Your task to perform on an android device: add a contact in the contacts app Image 0: 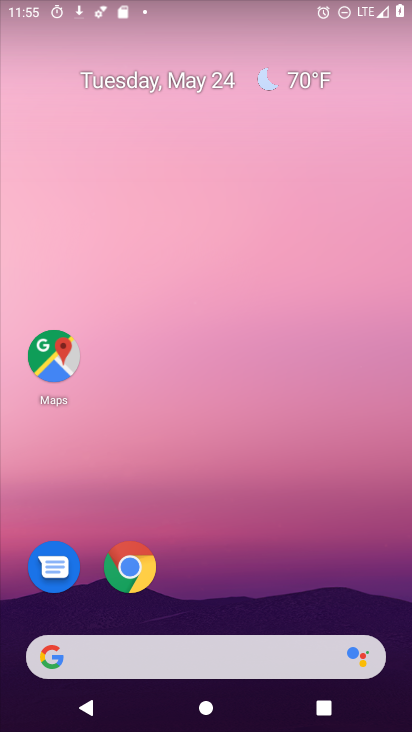
Step 0: drag from (395, 695) to (385, 268)
Your task to perform on an android device: add a contact in the contacts app Image 1: 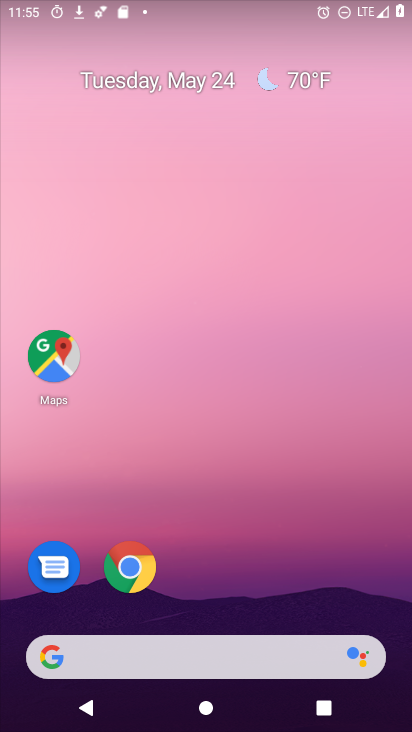
Step 1: drag from (392, 696) to (375, 233)
Your task to perform on an android device: add a contact in the contacts app Image 2: 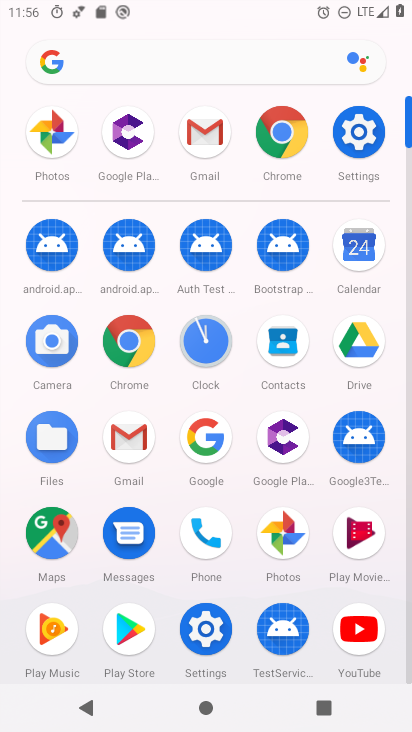
Step 2: click (279, 354)
Your task to perform on an android device: add a contact in the contacts app Image 3: 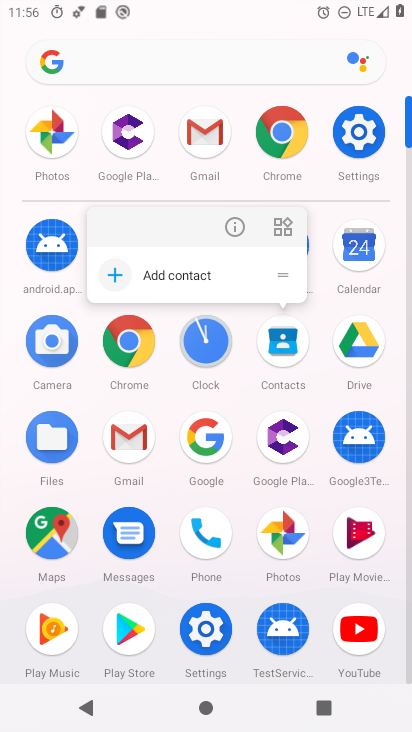
Step 3: click (269, 336)
Your task to perform on an android device: add a contact in the contacts app Image 4: 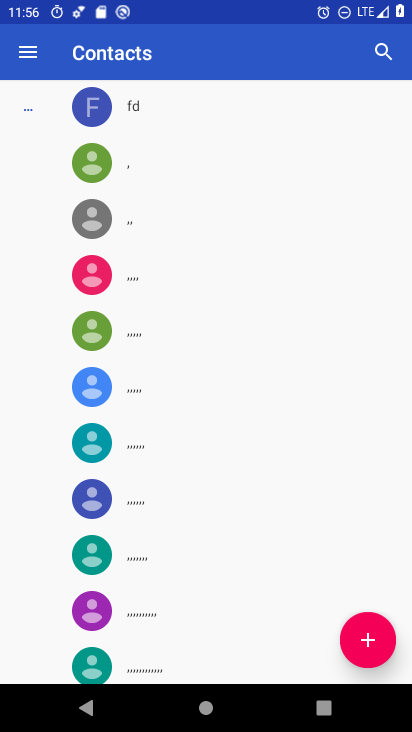
Step 4: click (368, 644)
Your task to perform on an android device: add a contact in the contacts app Image 5: 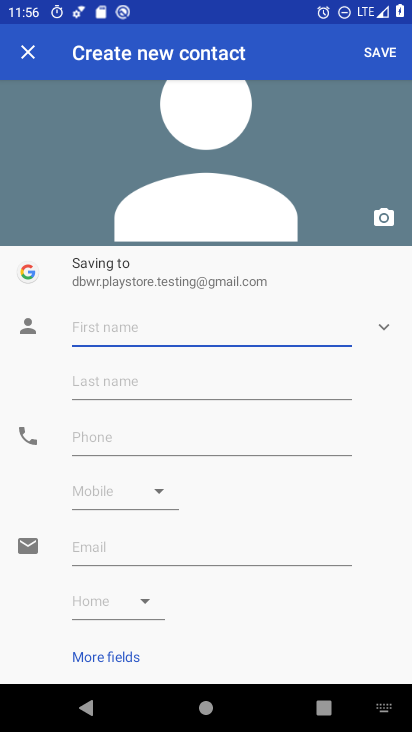
Step 5: click (160, 332)
Your task to perform on an android device: add a contact in the contacts app Image 6: 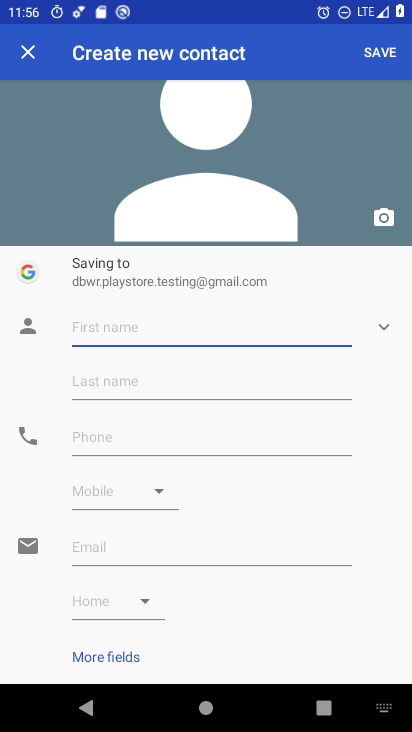
Step 6: type "fhgfgfgj"
Your task to perform on an android device: add a contact in the contacts app Image 7: 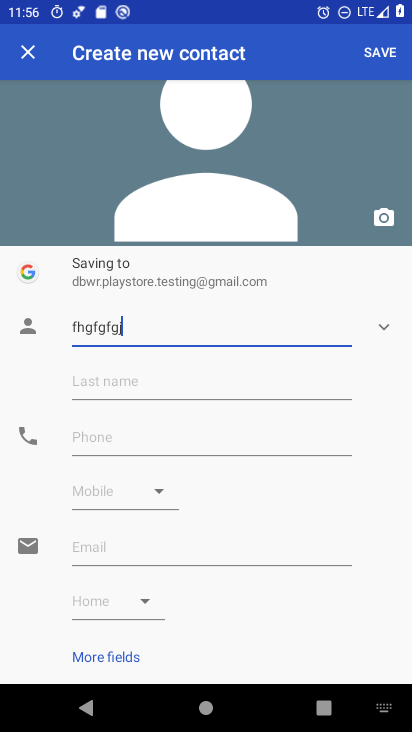
Step 7: click (151, 385)
Your task to perform on an android device: add a contact in the contacts app Image 8: 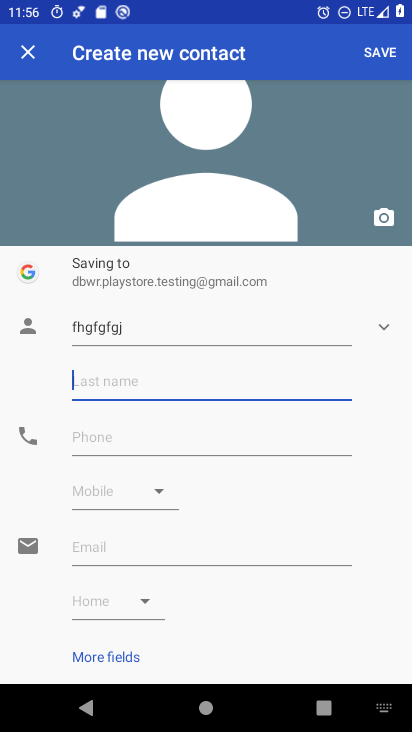
Step 8: type "hgfdfcgh"
Your task to perform on an android device: add a contact in the contacts app Image 9: 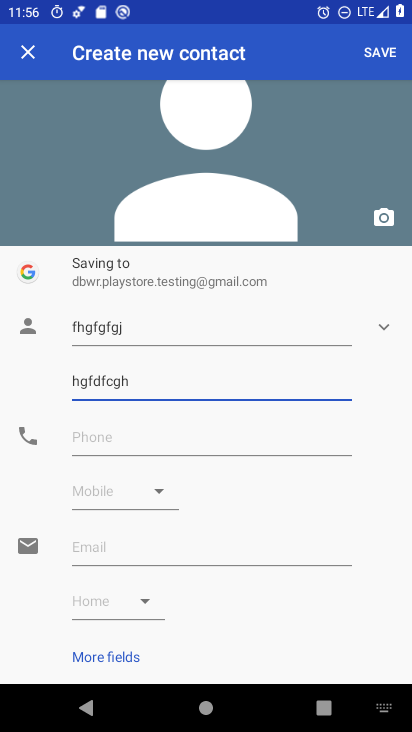
Step 9: click (221, 433)
Your task to perform on an android device: add a contact in the contacts app Image 10: 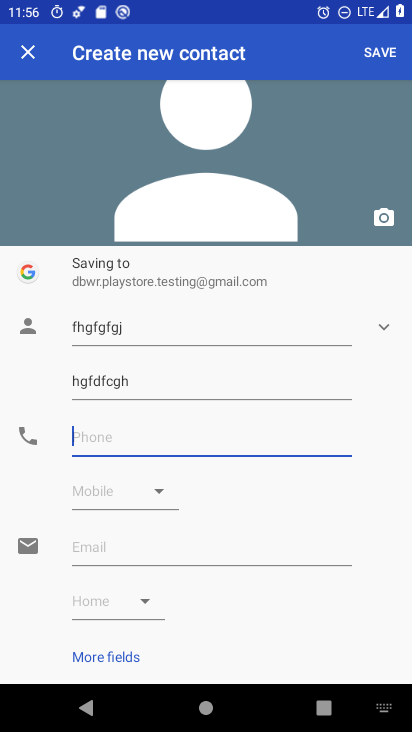
Step 10: type "6775745436678"
Your task to perform on an android device: add a contact in the contacts app Image 11: 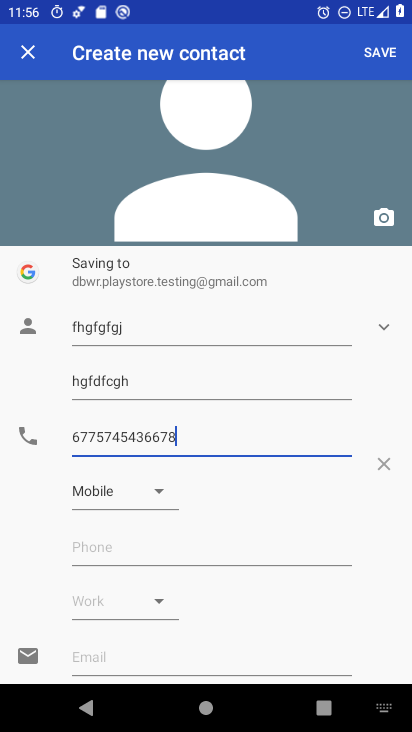
Step 11: click (388, 52)
Your task to perform on an android device: add a contact in the contacts app Image 12: 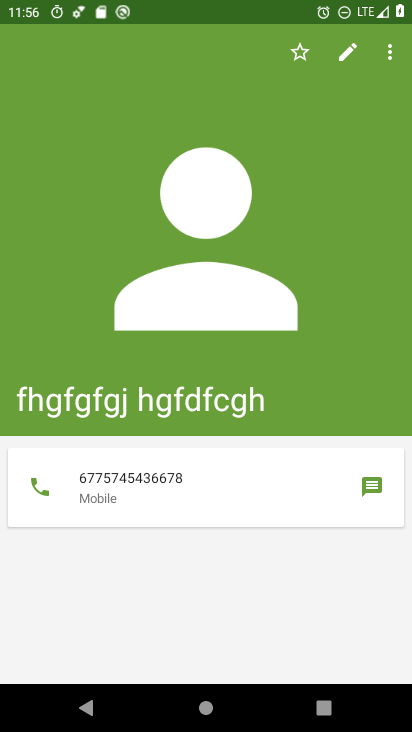
Step 12: task complete